Your task to perform on an android device: see tabs open on other devices in the chrome app Image 0: 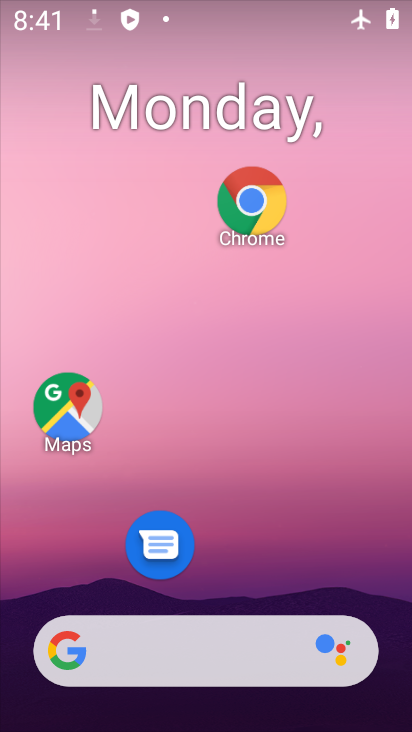
Step 0: click (242, 212)
Your task to perform on an android device: see tabs open on other devices in the chrome app Image 1: 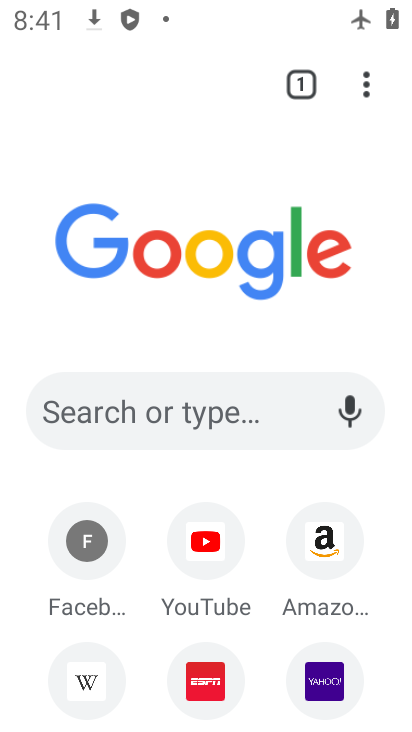
Step 1: click (367, 90)
Your task to perform on an android device: see tabs open on other devices in the chrome app Image 2: 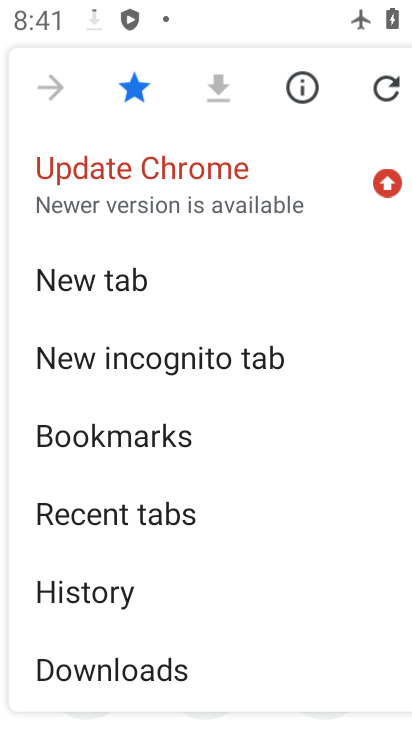
Step 2: click (154, 511)
Your task to perform on an android device: see tabs open on other devices in the chrome app Image 3: 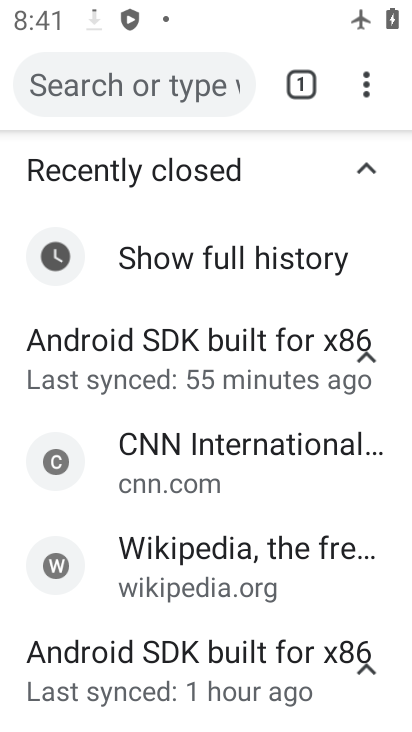
Step 3: task complete